Your task to perform on an android device: Open the map Image 0: 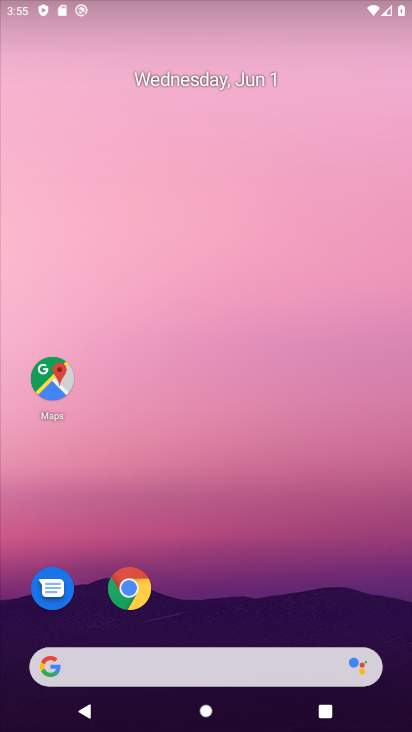
Step 0: drag from (295, 575) to (234, 240)
Your task to perform on an android device: Open the map Image 1: 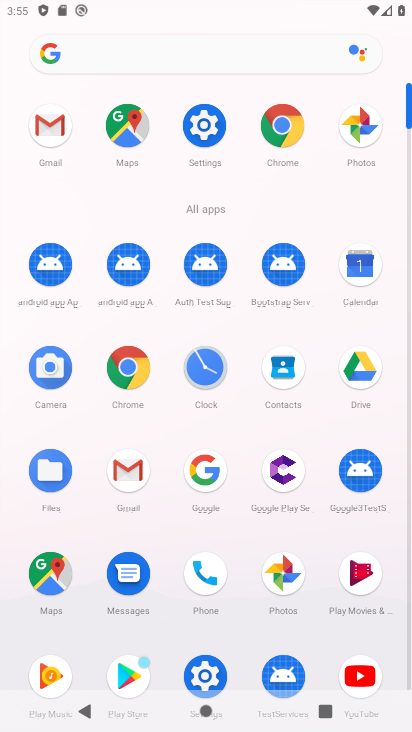
Step 1: click (125, 141)
Your task to perform on an android device: Open the map Image 2: 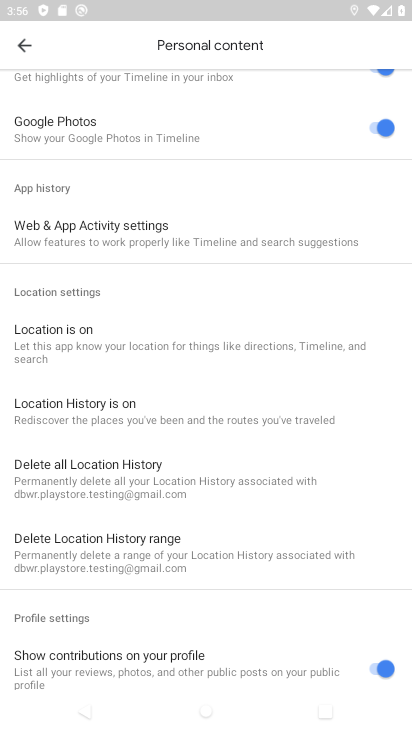
Step 2: click (26, 50)
Your task to perform on an android device: Open the map Image 3: 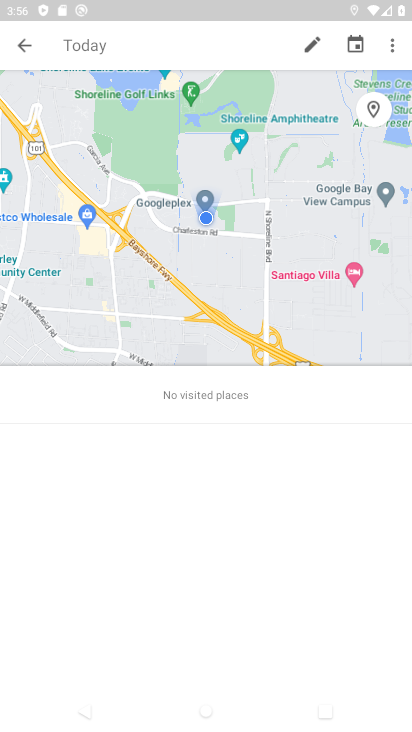
Step 3: task complete